Your task to perform on an android device: Open Chrome and go to the settings page Image 0: 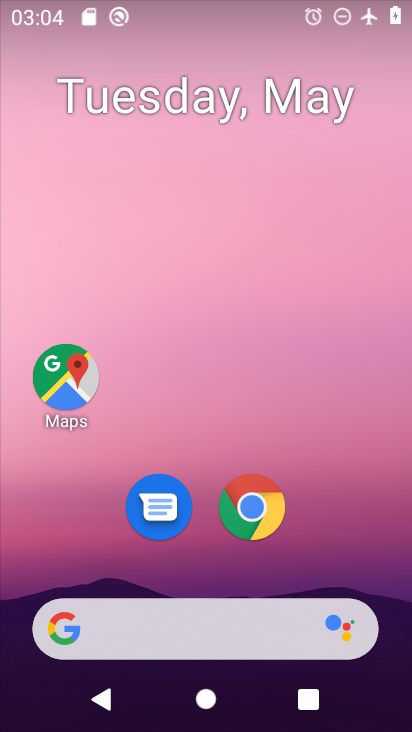
Step 0: click (269, 512)
Your task to perform on an android device: Open Chrome and go to the settings page Image 1: 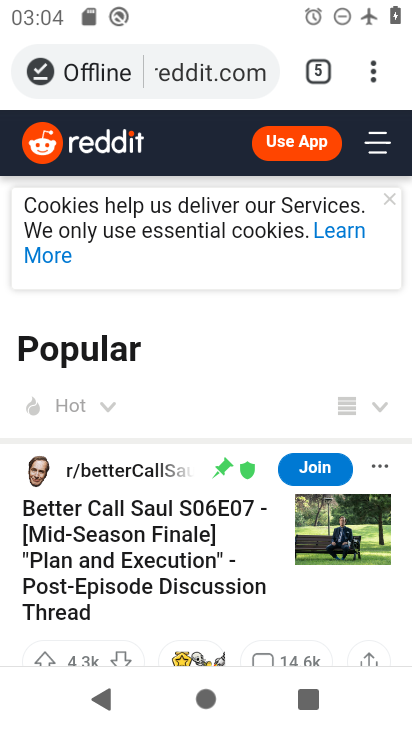
Step 1: click (369, 74)
Your task to perform on an android device: Open Chrome and go to the settings page Image 2: 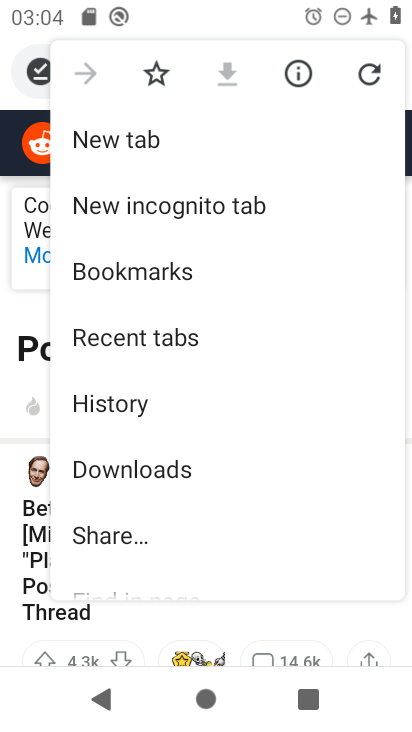
Step 2: drag from (220, 525) to (238, 278)
Your task to perform on an android device: Open Chrome and go to the settings page Image 3: 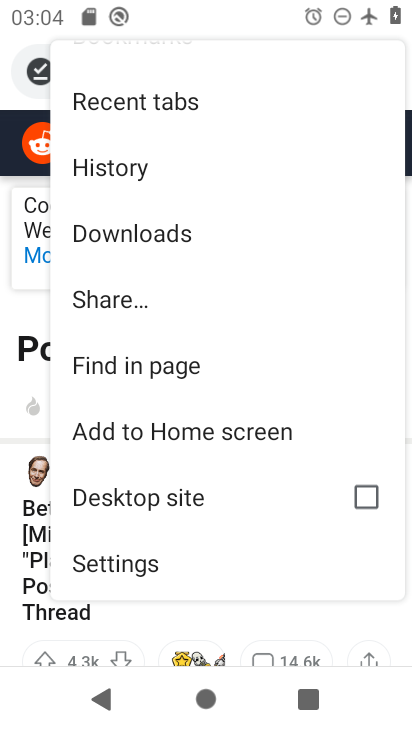
Step 3: click (172, 555)
Your task to perform on an android device: Open Chrome and go to the settings page Image 4: 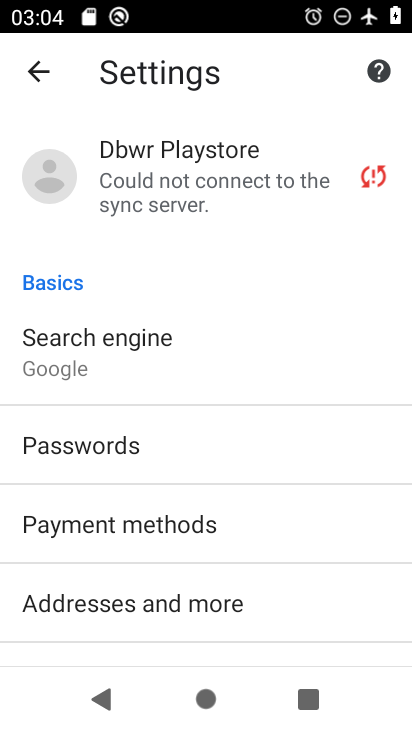
Step 4: task complete